Your task to perform on an android device: turn on bluetooth scan Image 0: 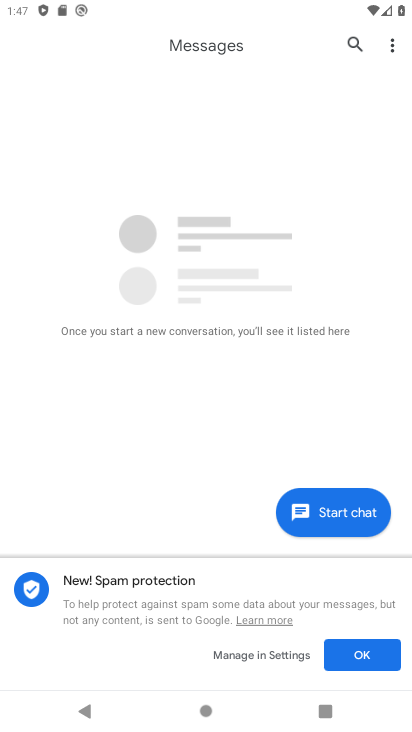
Step 0: press home button
Your task to perform on an android device: turn on bluetooth scan Image 1: 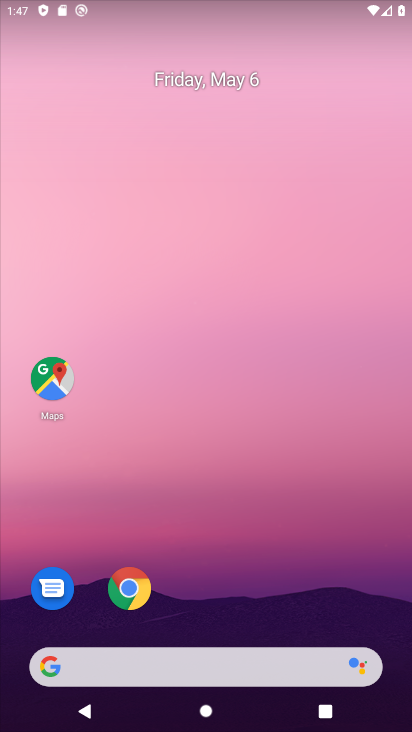
Step 1: drag from (169, 603) to (246, 26)
Your task to perform on an android device: turn on bluetooth scan Image 2: 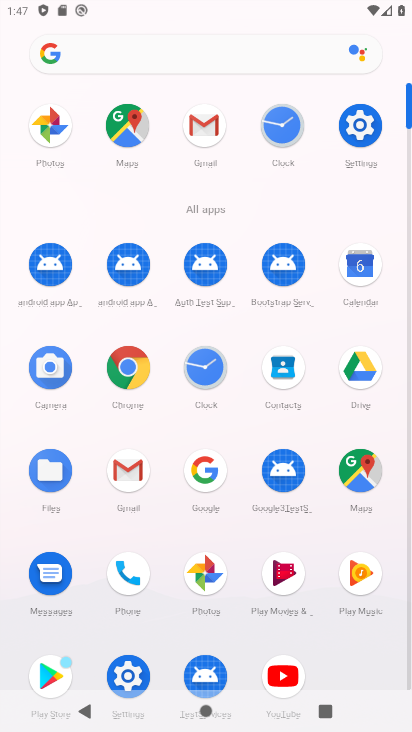
Step 2: click (362, 139)
Your task to perform on an android device: turn on bluetooth scan Image 3: 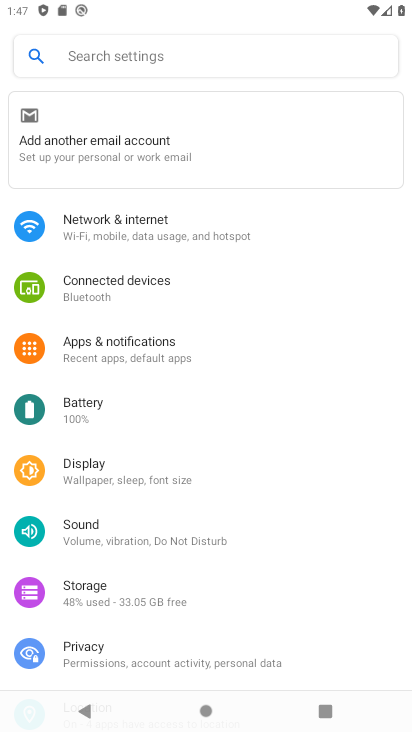
Step 3: drag from (100, 605) to (201, 138)
Your task to perform on an android device: turn on bluetooth scan Image 4: 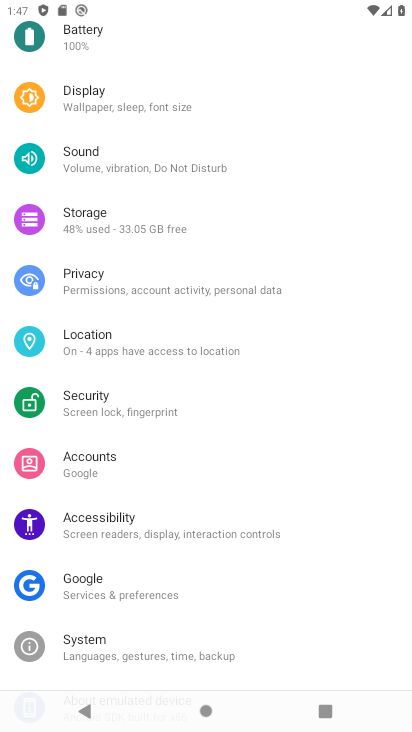
Step 4: click (117, 372)
Your task to perform on an android device: turn on bluetooth scan Image 5: 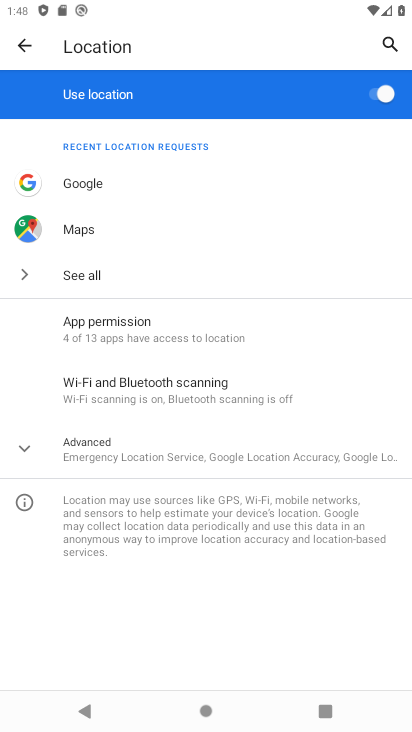
Step 5: click (169, 453)
Your task to perform on an android device: turn on bluetooth scan Image 6: 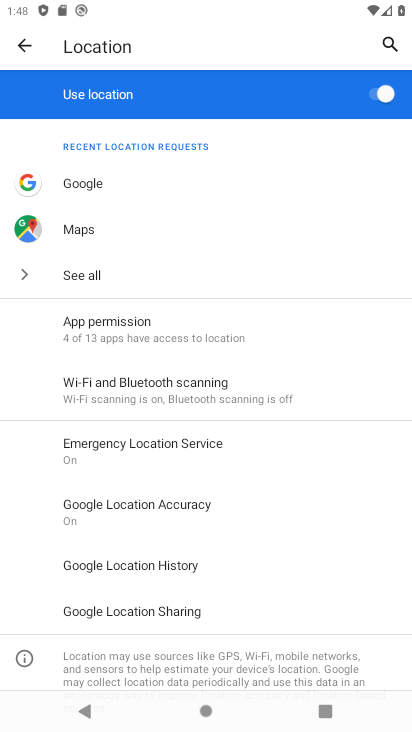
Step 6: click (143, 401)
Your task to perform on an android device: turn on bluetooth scan Image 7: 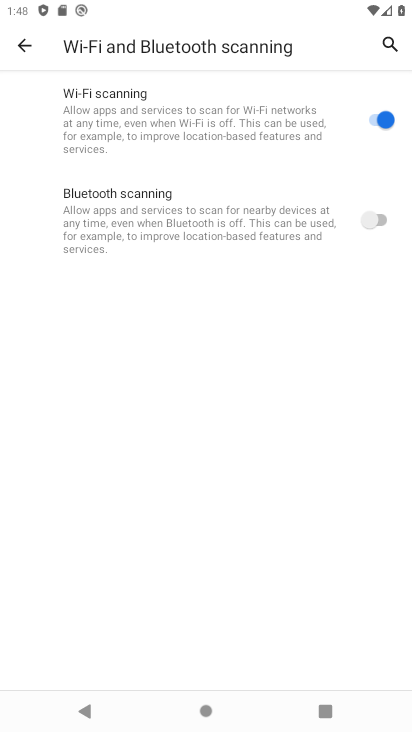
Step 7: click (377, 225)
Your task to perform on an android device: turn on bluetooth scan Image 8: 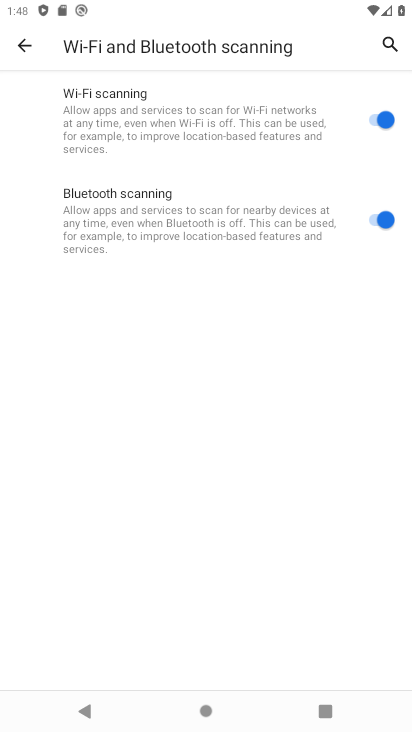
Step 8: task complete